Your task to perform on an android device: Open accessibility settings Image 0: 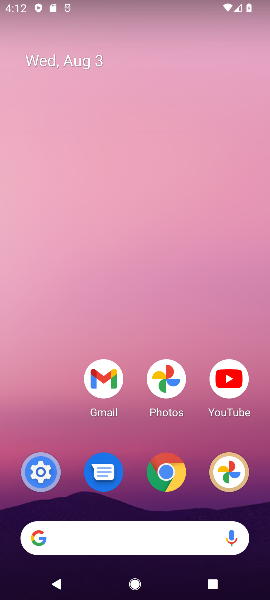
Step 0: drag from (205, 447) to (219, 18)
Your task to perform on an android device: Open accessibility settings Image 1: 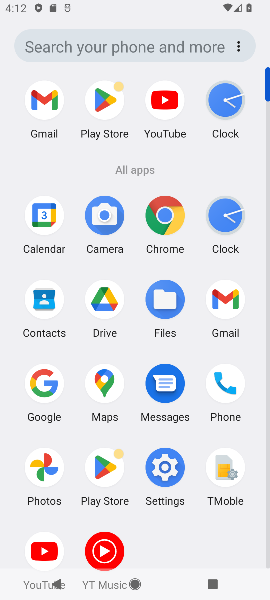
Step 1: click (157, 476)
Your task to perform on an android device: Open accessibility settings Image 2: 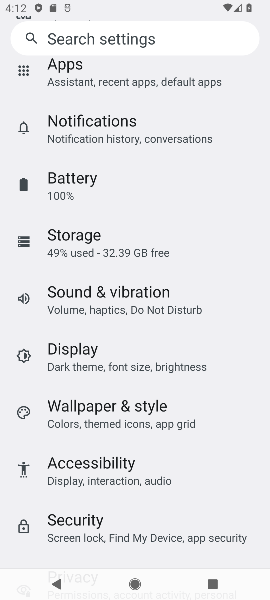
Step 2: click (106, 461)
Your task to perform on an android device: Open accessibility settings Image 3: 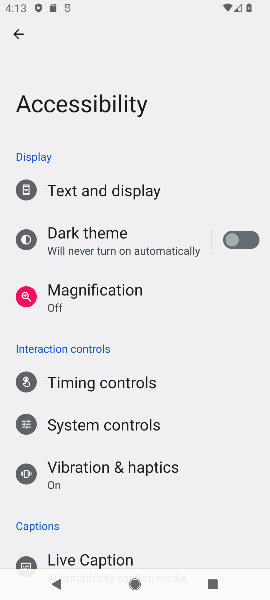
Step 3: task complete